Your task to perform on an android device: check android version Image 0: 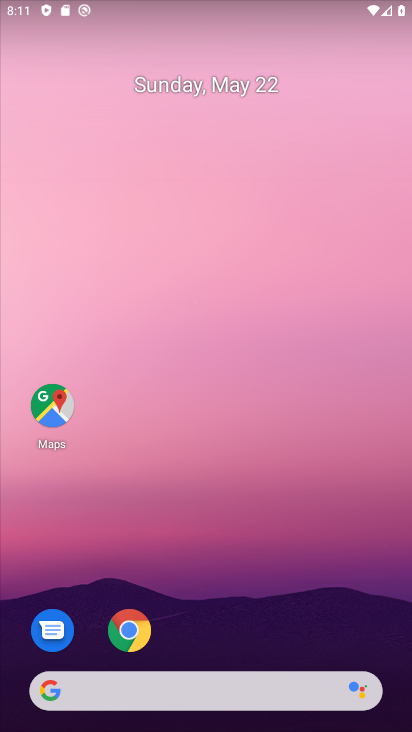
Step 0: press home button
Your task to perform on an android device: check android version Image 1: 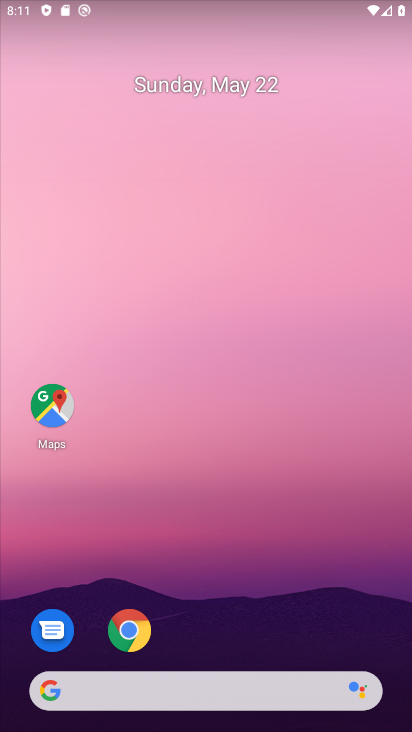
Step 1: drag from (130, 691) to (333, 203)
Your task to perform on an android device: check android version Image 2: 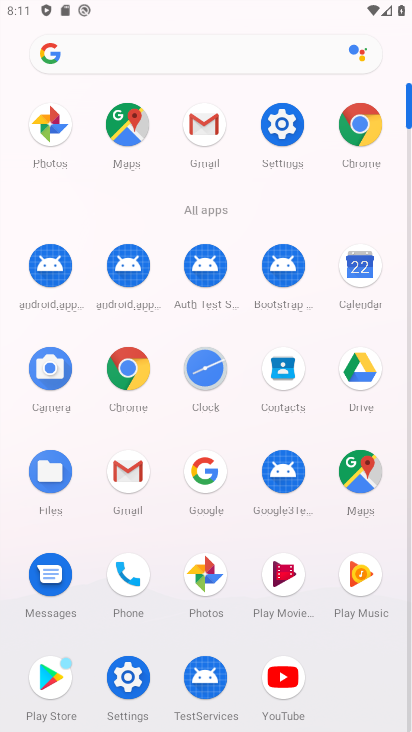
Step 2: click (282, 129)
Your task to perform on an android device: check android version Image 3: 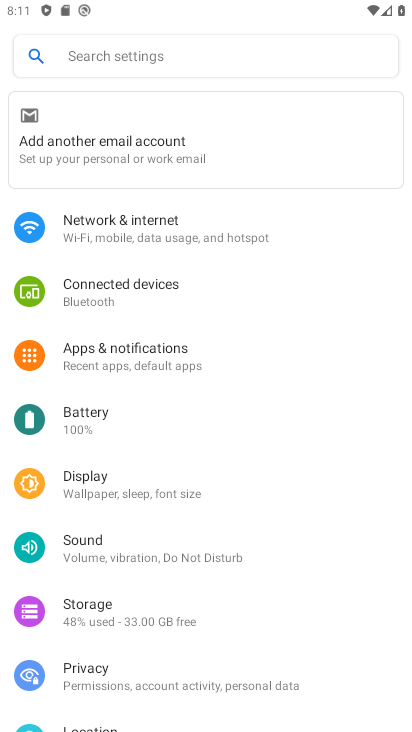
Step 3: drag from (250, 633) to (405, 65)
Your task to perform on an android device: check android version Image 4: 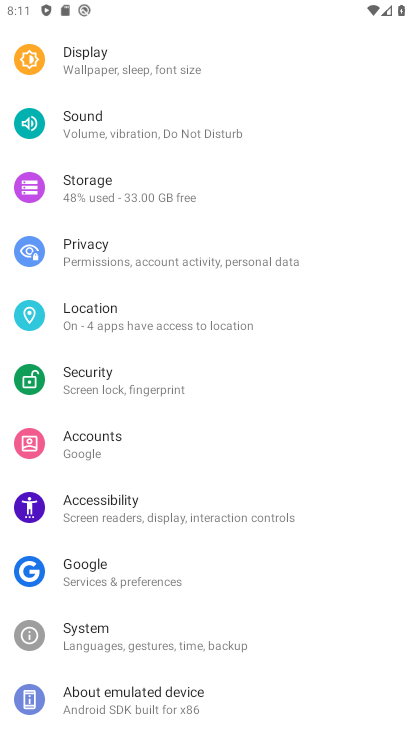
Step 4: drag from (285, 652) to (393, 87)
Your task to perform on an android device: check android version Image 5: 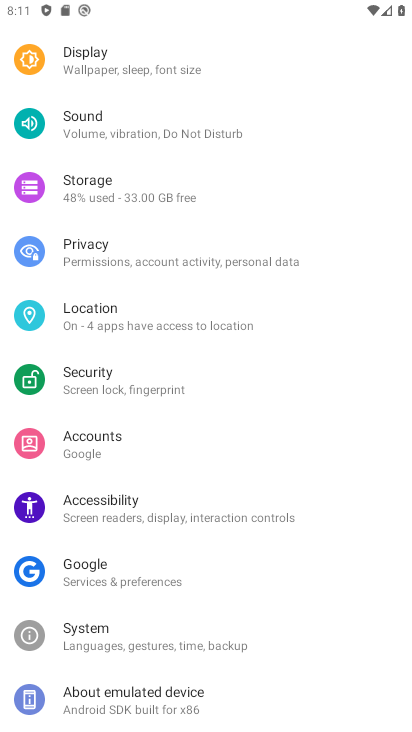
Step 5: click (161, 686)
Your task to perform on an android device: check android version Image 6: 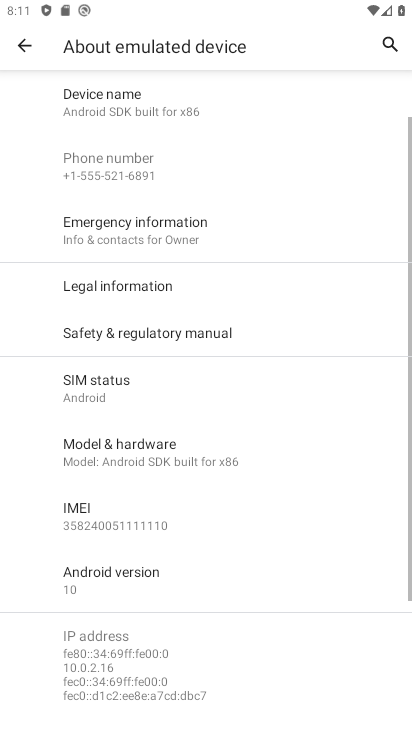
Step 6: click (110, 570)
Your task to perform on an android device: check android version Image 7: 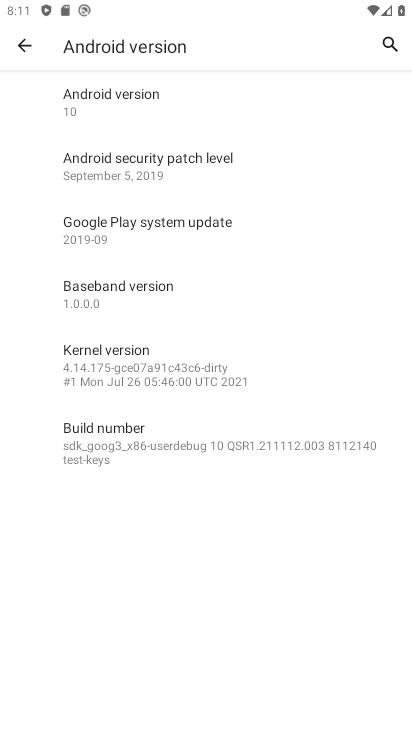
Step 7: task complete